Your task to perform on an android device: Open Youtube and go to the subscriptions tab Image 0: 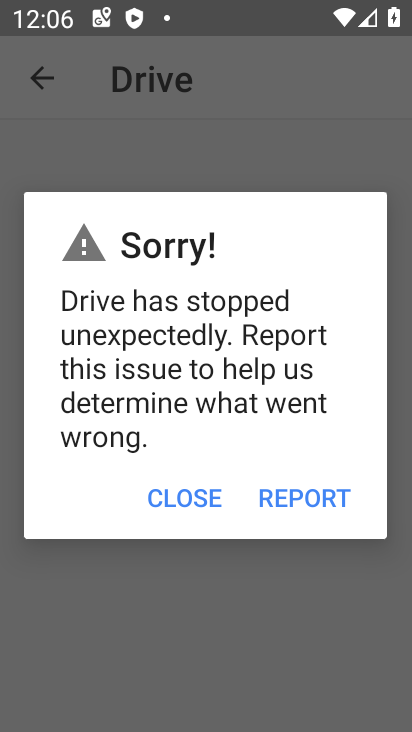
Step 0: press home button
Your task to perform on an android device: Open Youtube and go to the subscriptions tab Image 1: 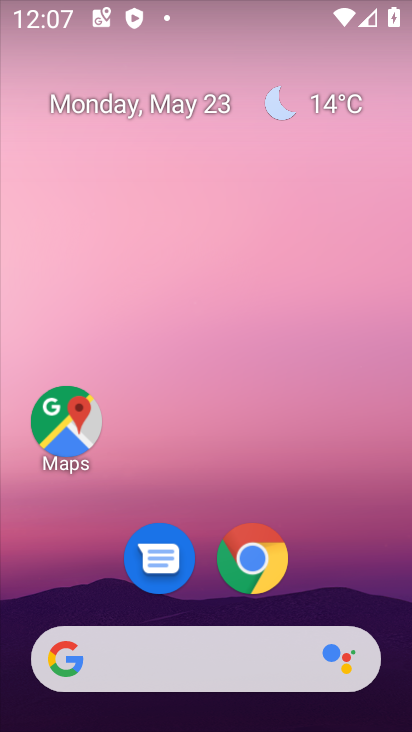
Step 1: drag from (361, 614) to (338, 17)
Your task to perform on an android device: Open Youtube and go to the subscriptions tab Image 2: 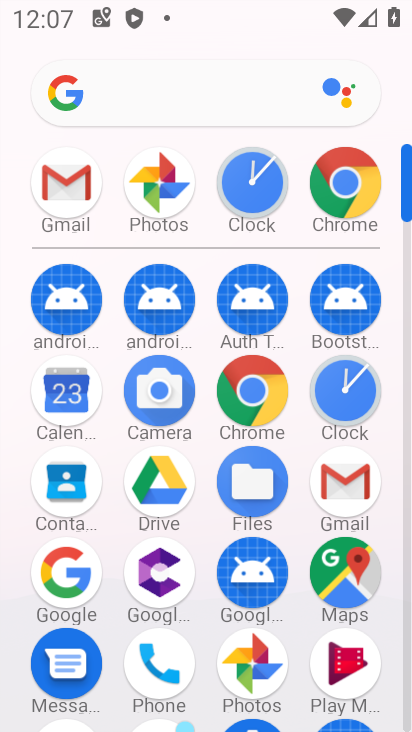
Step 2: click (409, 643)
Your task to perform on an android device: Open Youtube and go to the subscriptions tab Image 3: 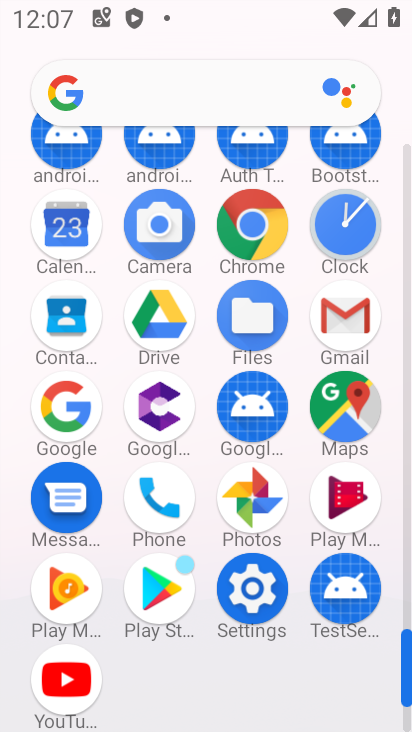
Step 3: click (52, 686)
Your task to perform on an android device: Open Youtube and go to the subscriptions tab Image 4: 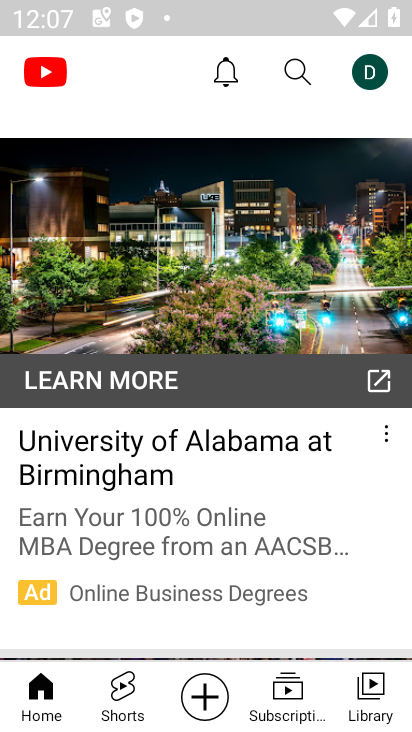
Step 4: click (299, 704)
Your task to perform on an android device: Open Youtube and go to the subscriptions tab Image 5: 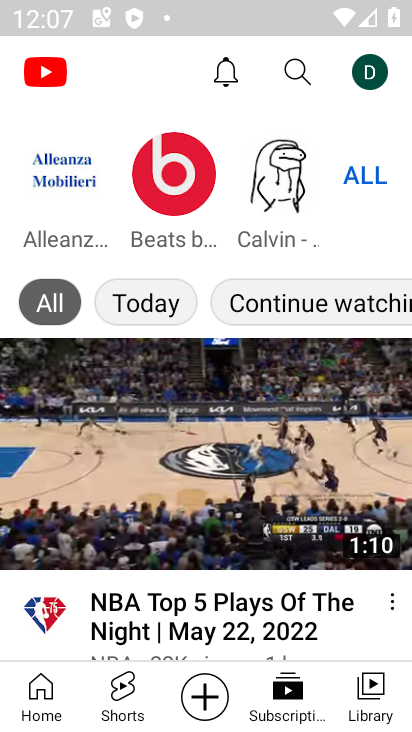
Step 5: task complete